Your task to perform on an android device: clear history in the chrome app Image 0: 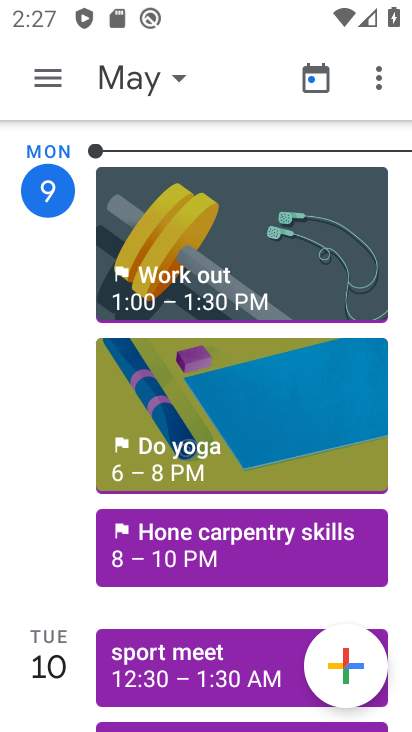
Step 0: press home button
Your task to perform on an android device: clear history in the chrome app Image 1: 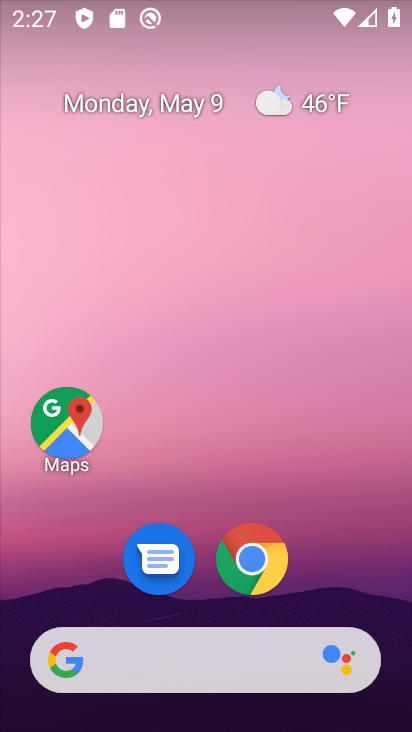
Step 1: click (263, 565)
Your task to perform on an android device: clear history in the chrome app Image 2: 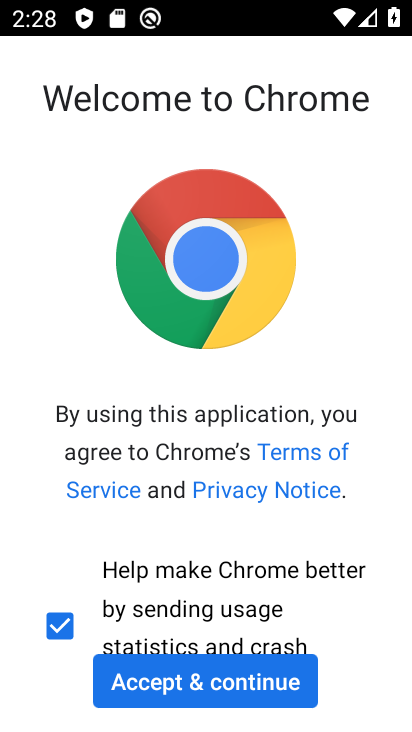
Step 2: click (191, 667)
Your task to perform on an android device: clear history in the chrome app Image 3: 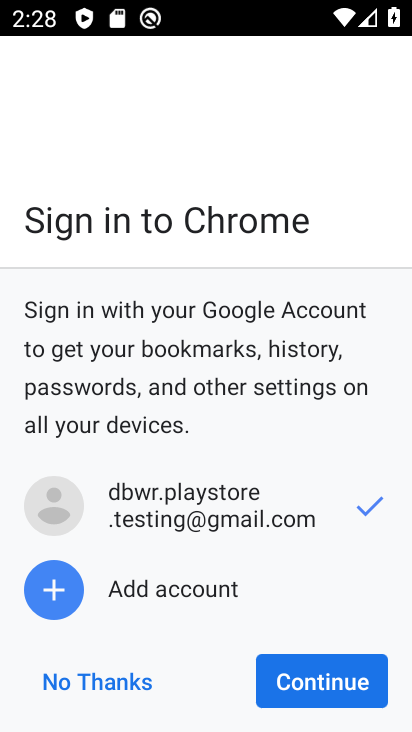
Step 3: click (327, 659)
Your task to perform on an android device: clear history in the chrome app Image 4: 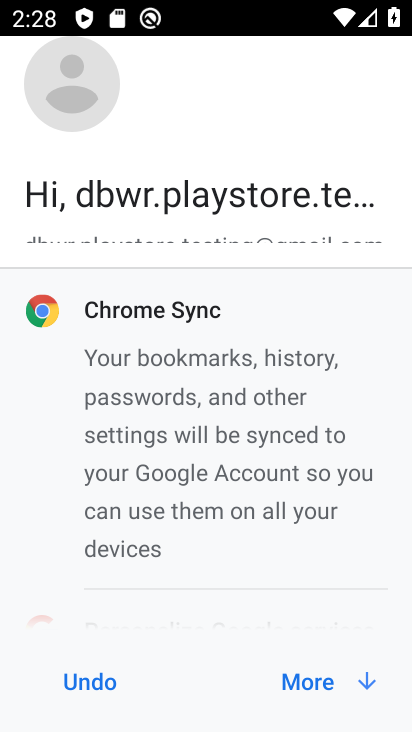
Step 4: click (327, 671)
Your task to perform on an android device: clear history in the chrome app Image 5: 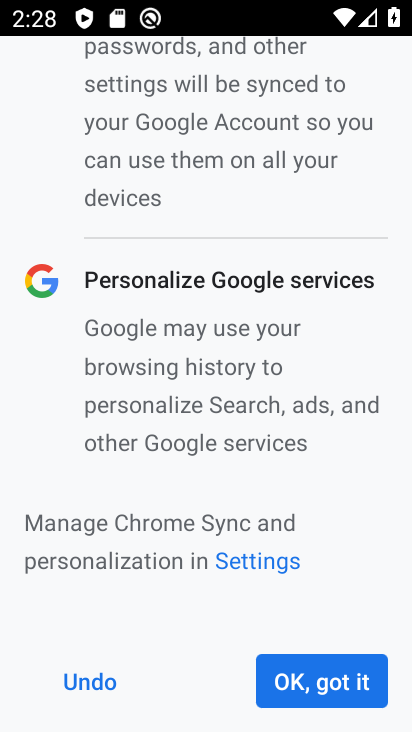
Step 5: click (327, 671)
Your task to perform on an android device: clear history in the chrome app Image 6: 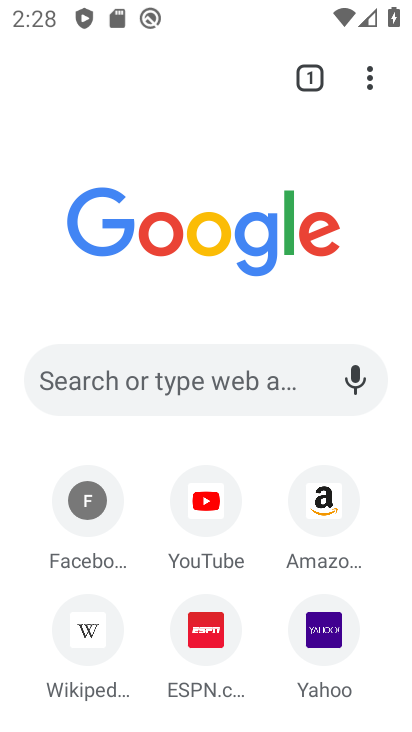
Step 6: click (386, 76)
Your task to perform on an android device: clear history in the chrome app Image 7: 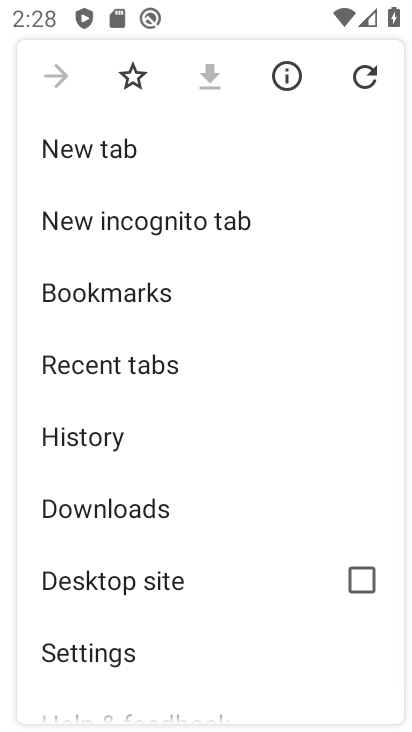
Step 7: click (122, 437)
Your task to perform on an android device: clear history in the chrome app Image 8: 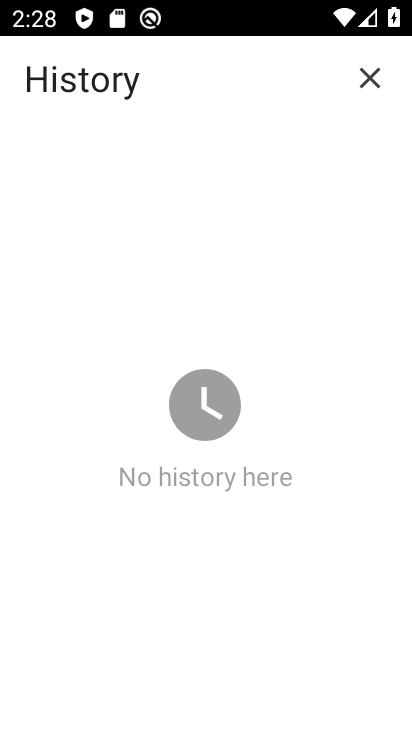
Step 8: task complete